Your task to perform on an android device: Show the shopping cart on newegg. Search for "jbl flip 4" on newegg, select the first entry, and add it to the cart. Image 0: 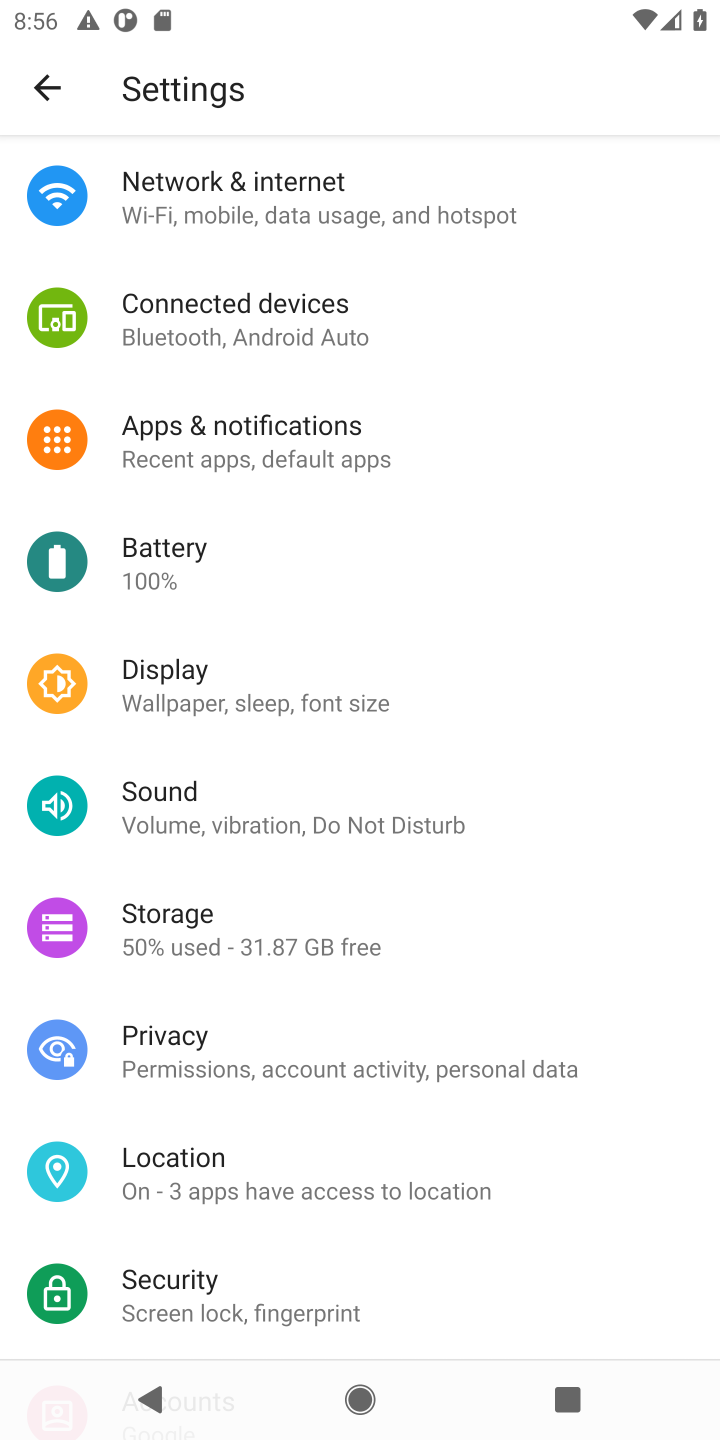
Step 0: press home button
Your task to perform on an android device: Show the shopping cart on newegg. Search for "jbl flip 4" on newegg, select the first entry, and add it to the cart. Image 1: 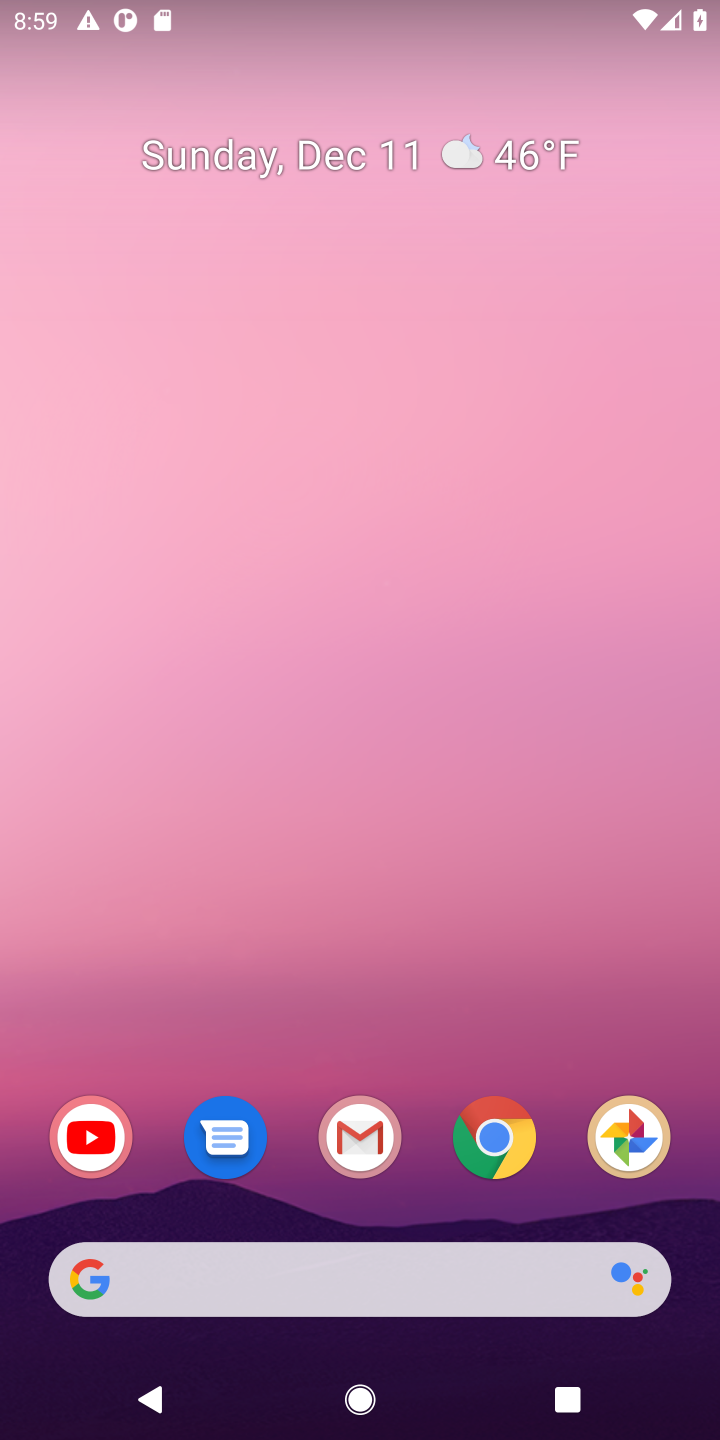
Step 1: task complete